Your task to perform on an android device: change timer sound Image 0: 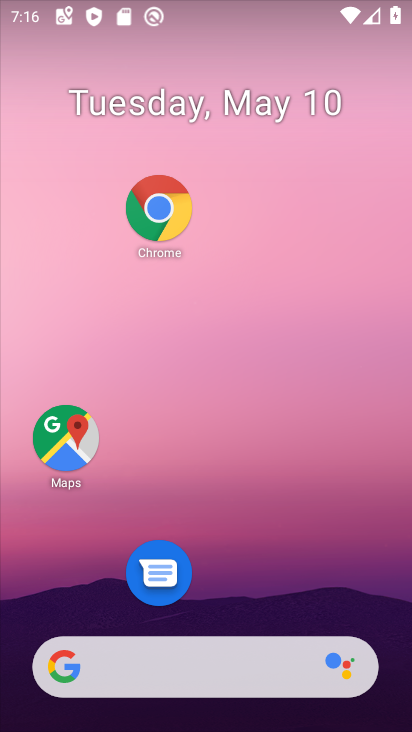
Step 0: drag from (268, 698) to (241, 322)
Your task to perform on an android device: change timer sound Image 1: 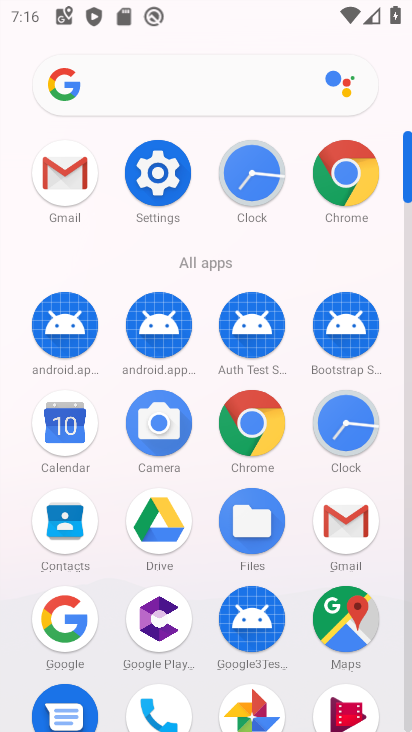
Step 1: click (363, 414)
Your task to perform on an android device: change timer sound Image 2: 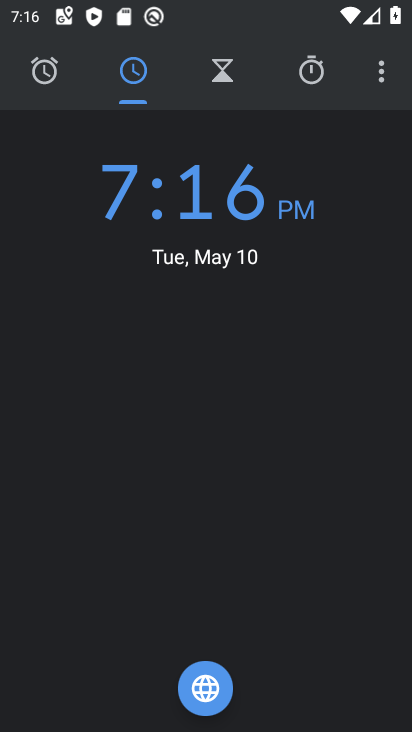
Step 2: click (378, 78)
Your task to perform on an android device: change timer sound Image 3: 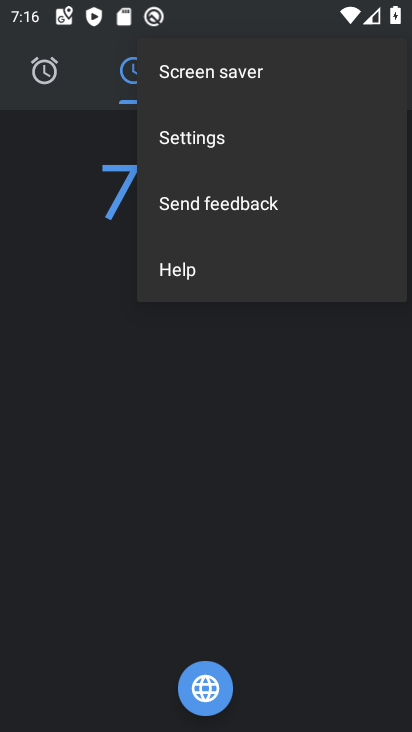
Step 3: click (265, 138)
Your task to perform on an android device: change timer sound Image 4: 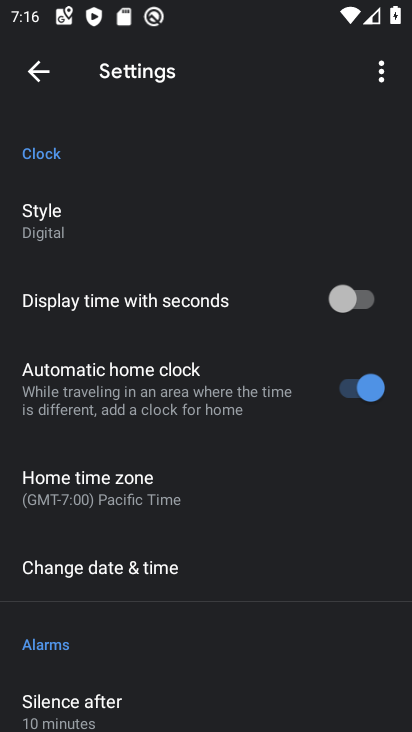
Step 4: drag from (190, 549) to (269, 248)
Your task to perform on an android device: change timer sound Image 5: 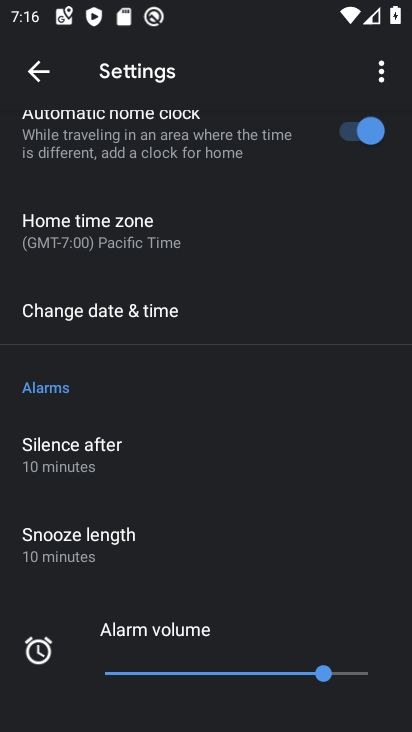
Step 5: drag from (213, 495) to (275, 277)
Your task to perform on an android device: change timer sound Image 6: 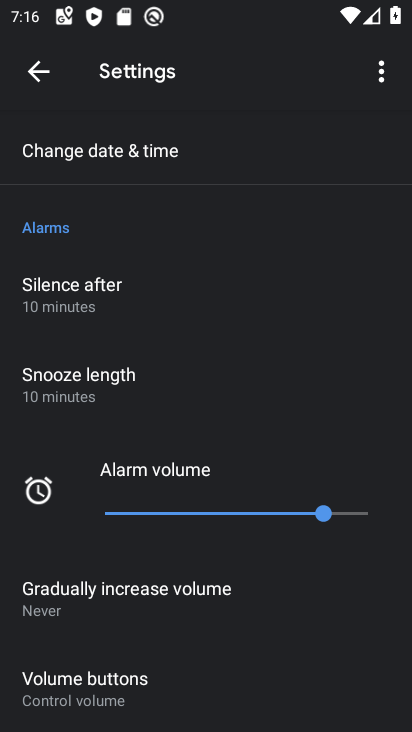
Step 6: drag from (166, 620) to (238, 457)
Your task to perform on an android device: change timer sound Image 7: 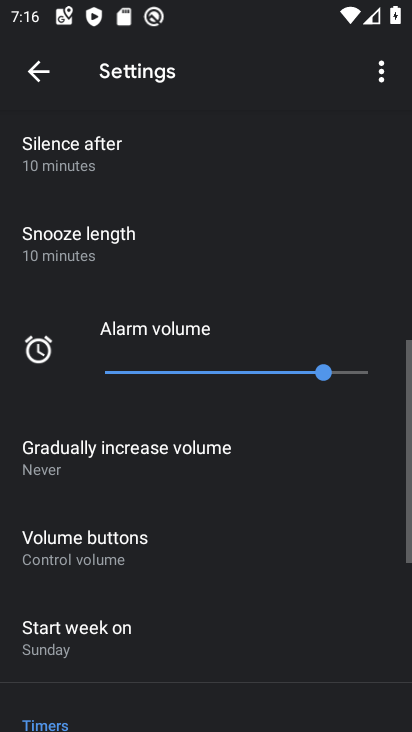
Step 7: drag from (185, 625) to (220, 444)
Your task to perform on an android device: change timer sound Image 8: 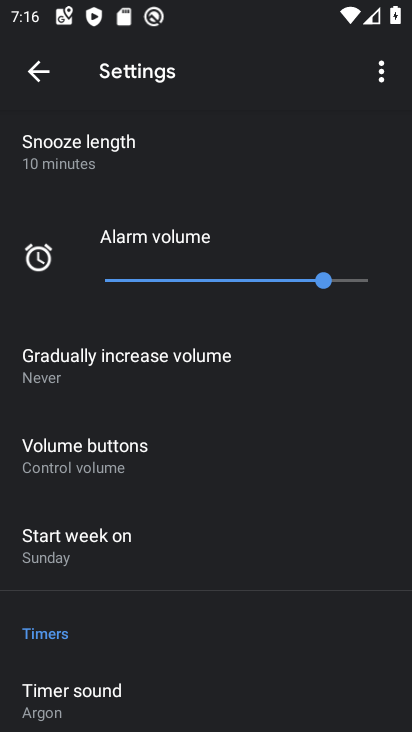
Step 8: click (135, 683)
Your task to perform on an android device: change timer sound Image 9: 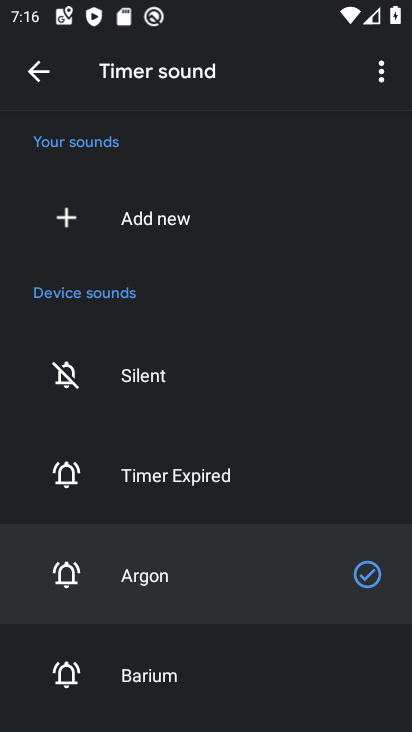
Step 9: click (130, 681)
Your task to perform on an android device: change timer sound Image 10: 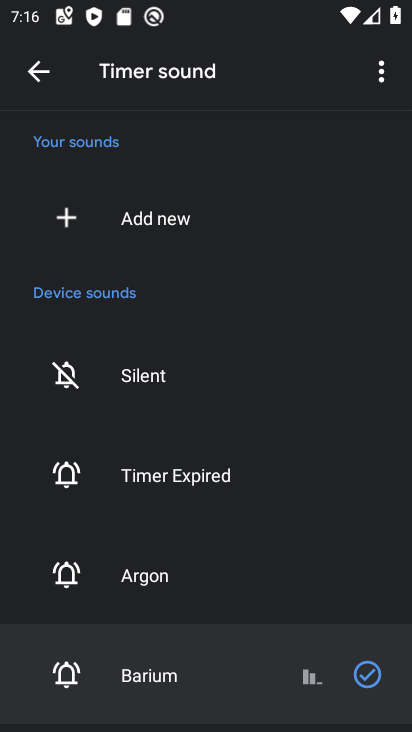
Step 10: task complete